Your task to perform on an android device: Go to Amazon Image 0: 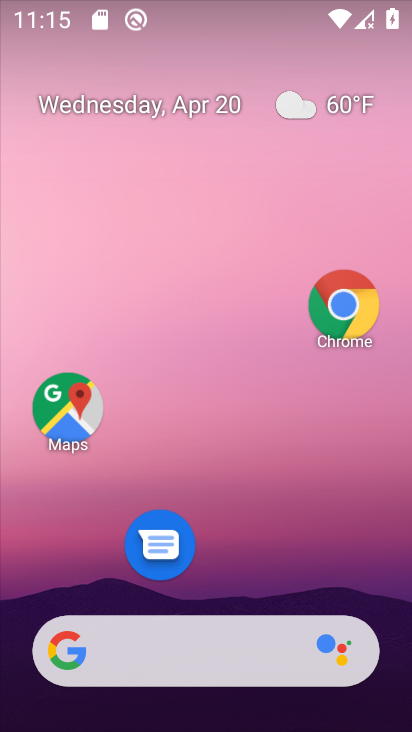
Step 0: click (354, 313)
Your task to perform on an android device: Go to Amazon Image 1: 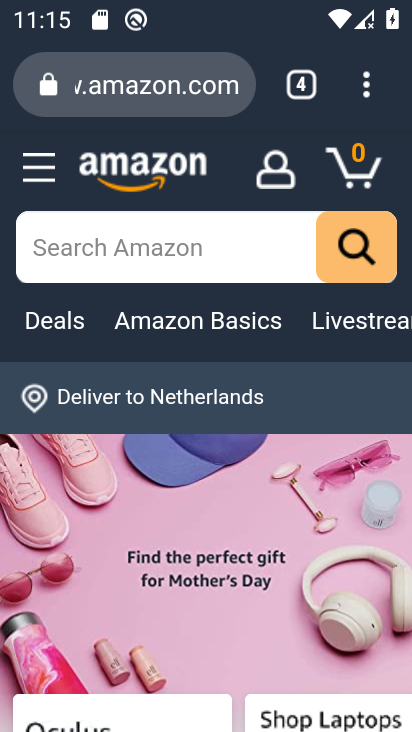
Step 1: task complete